Your task to perform on an android device: set the stopwatch Image 0: 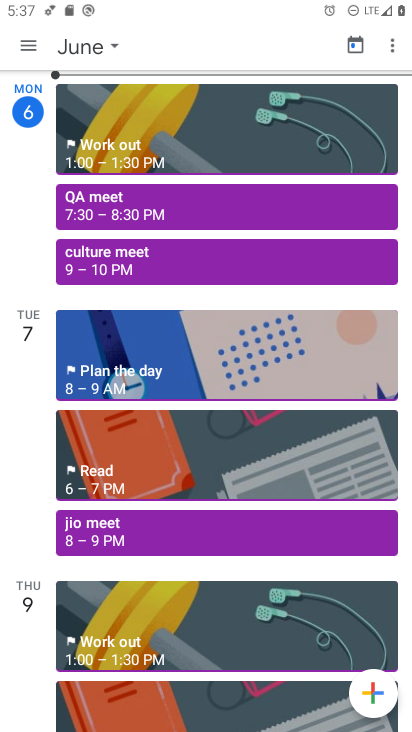
Step 0: click (128, 640)
Your task to perform on an android device: set the stopwatch Image 1: 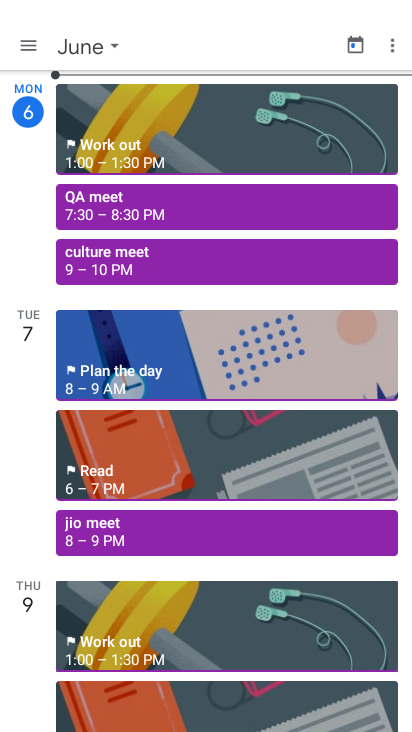
Step 1: press home button
Your task to perform on an android device: set the stopwatch Image 2: 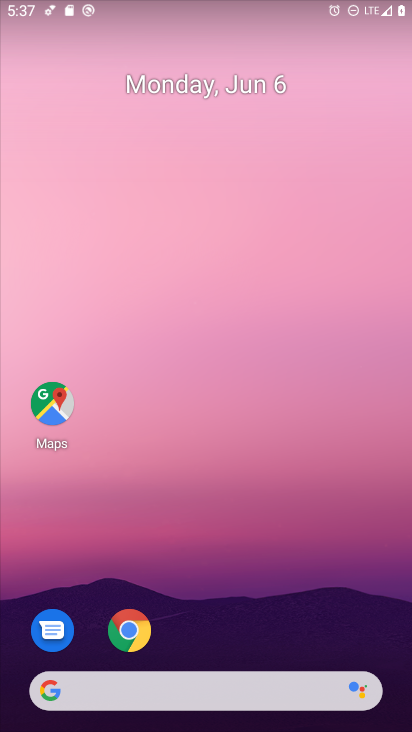
Step 2: drag from (354, 614) to (228, 35)
Your task to perform on an android device: set the stopwatch Image 3: 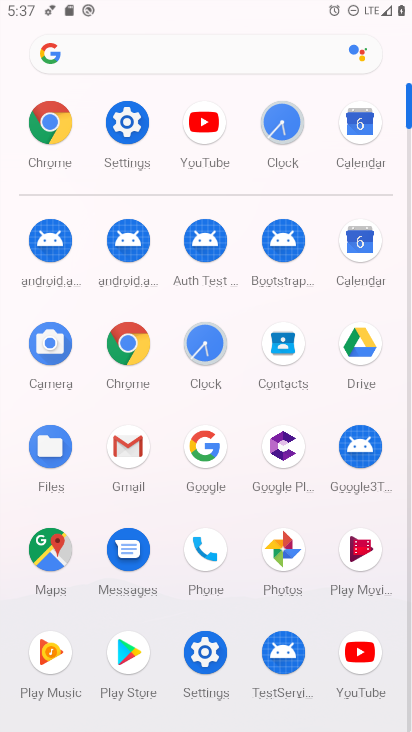
Step 3: click (289, 131)
Your task to perform on an android device: set the stopwatch Image 4: 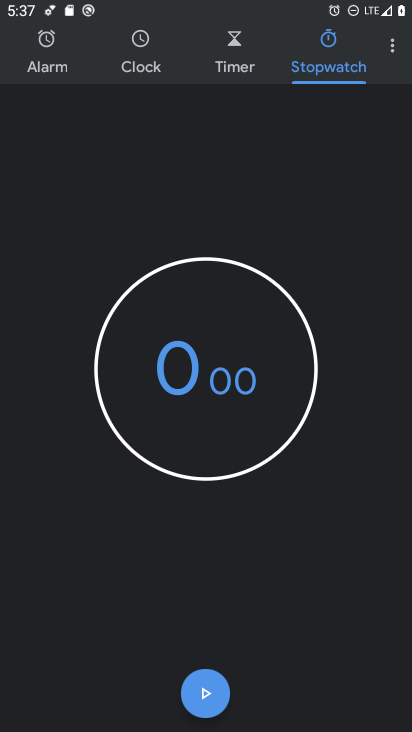
Step 4: click (219, 692)
Your task to perform on an android device: set the stopwatch Image 5: 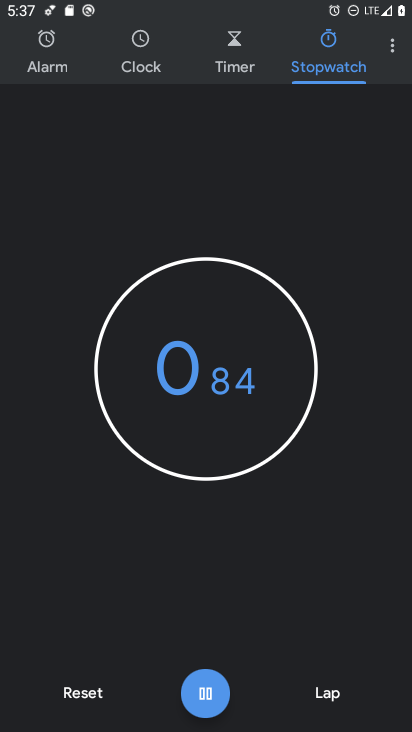
Step 5: task complete